Your task to perform on an android device: empty trash in the gmail app Image 0: 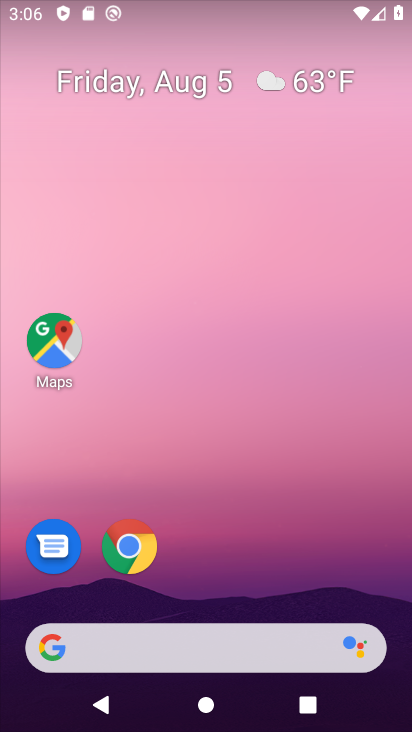
Step 0: press home button
Your task to perform on an android device: empty trash in the gmail app Image 1: 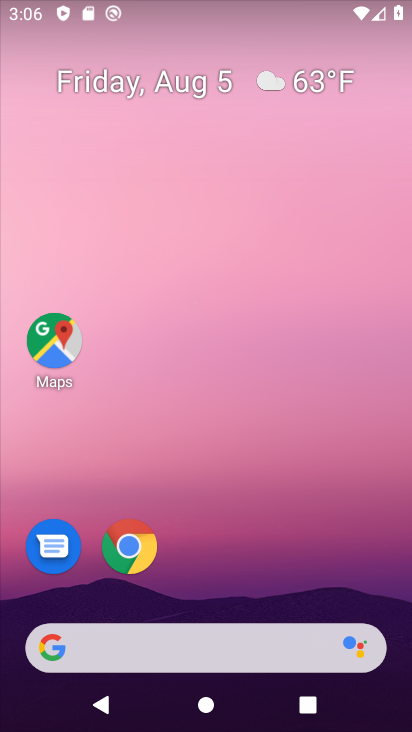
Step 1: drag from (380, 589) to (403, 103)
Your task to perform on an android device: empty trash in the gmail app Image 2: 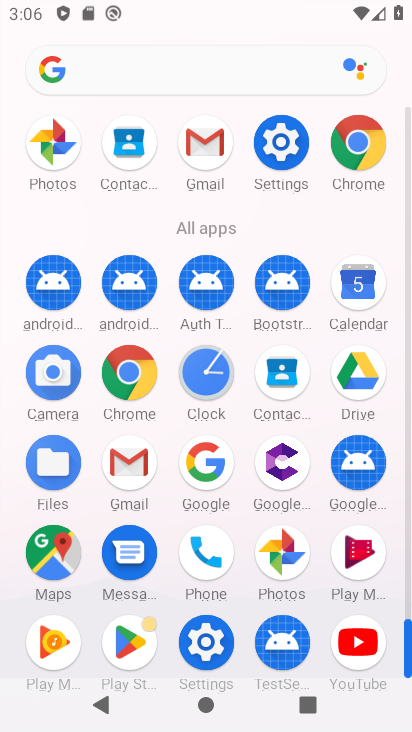
Step 2: click (127, 464)
Your task to perform on an android device: empty trash in the gmail app Image 3: 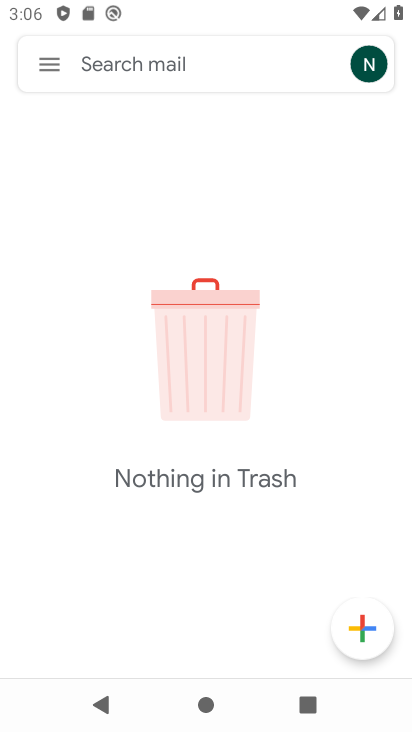
Step 3: task complete